Your task to perform on an android device: Search for sushi restaurants on Maps Image 0: 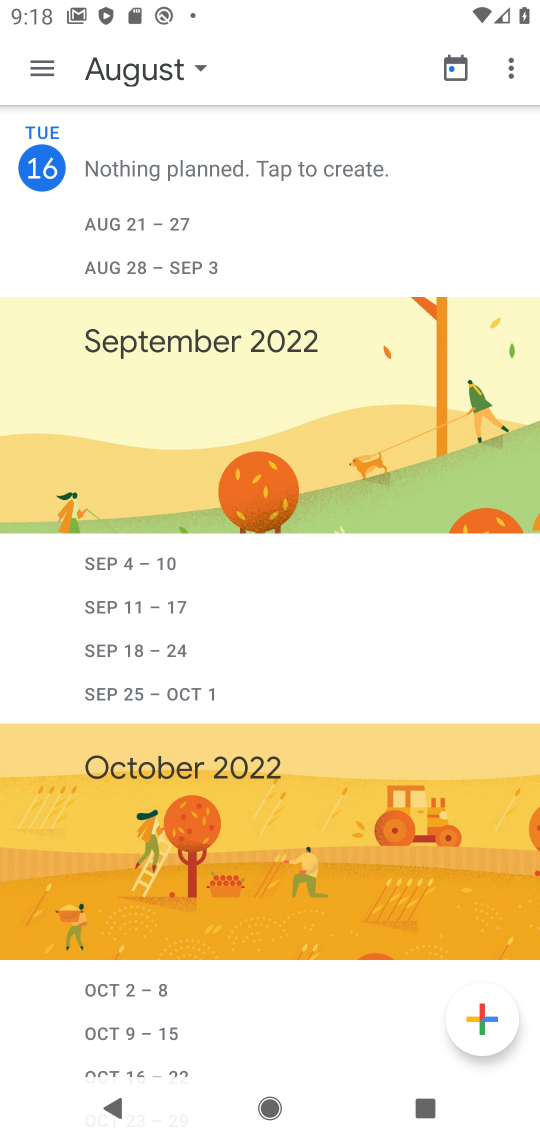
Step 0: press home button
Your task to perform on an android device: Search for sushi restaurants on Maps Image 1: 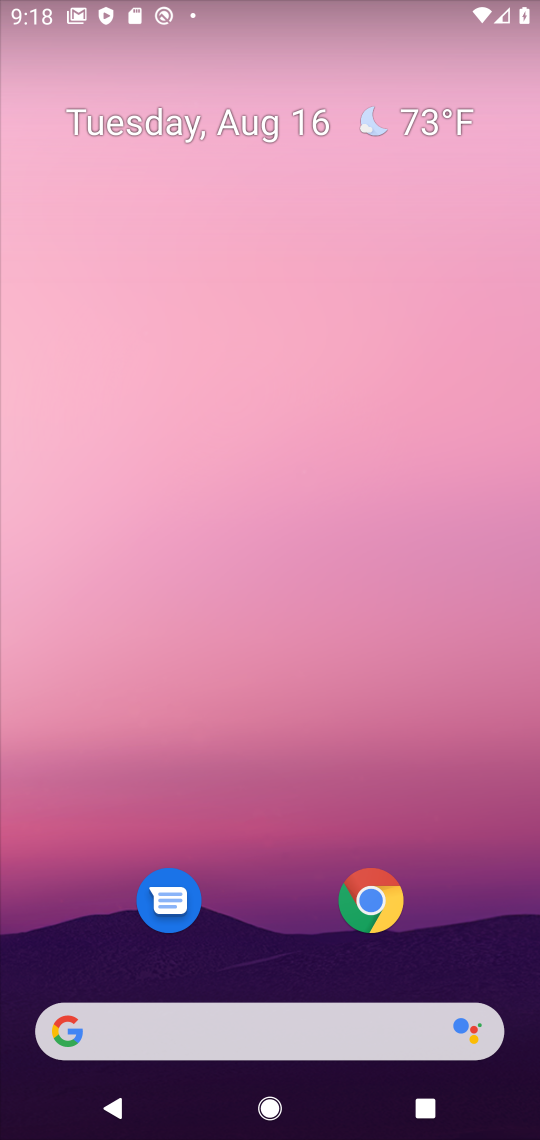
Step 1: drag from (270, 1004) to (425, 239)
Your task to perform on an android device: Search for sushi restaurants on Maps Image 2: 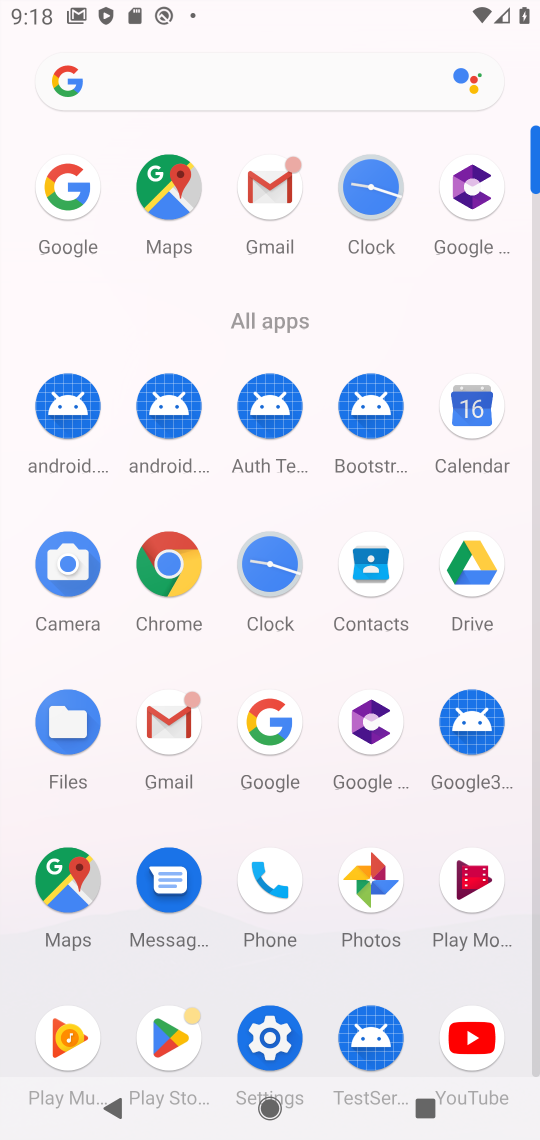
Step 2: click (85, 888)
Your task to perform on an android device: Search for sushi restaurants on Maps Image 3: 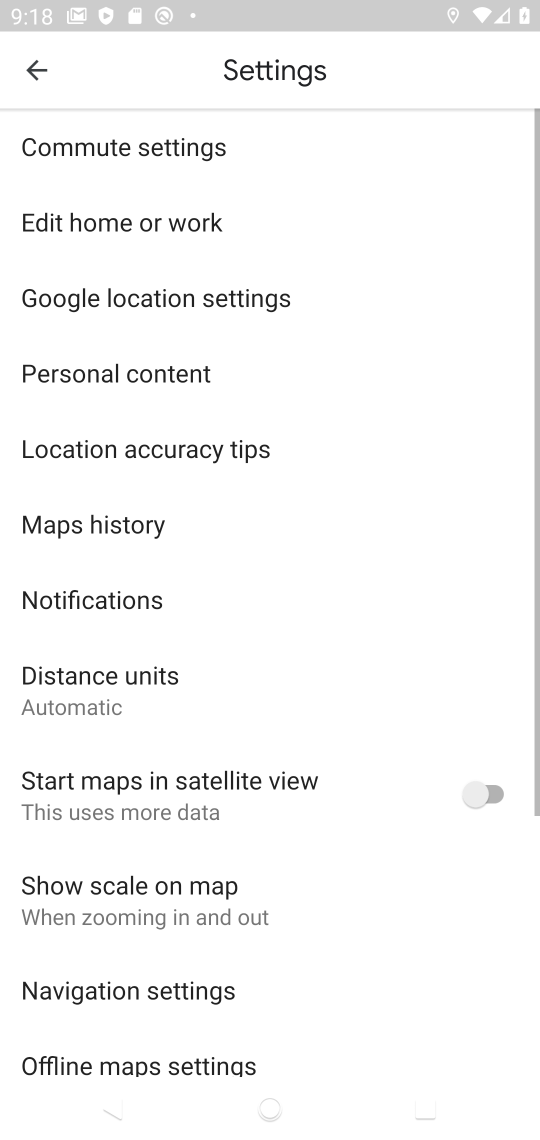
Step 3: click (53, 70)
Your task to perform on an android device: Search for sushi restaurants on Maps Image 4: 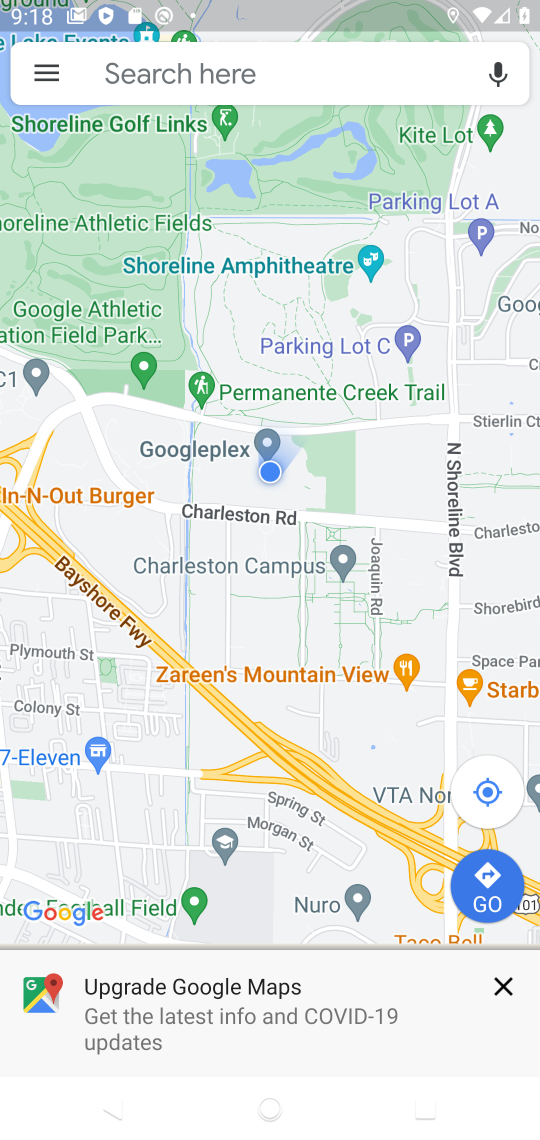
Step 4: drag from (202, 146) to (185, 893)
Your task to perform on an android device: Search for sushi restaurants on Maps Image 5: 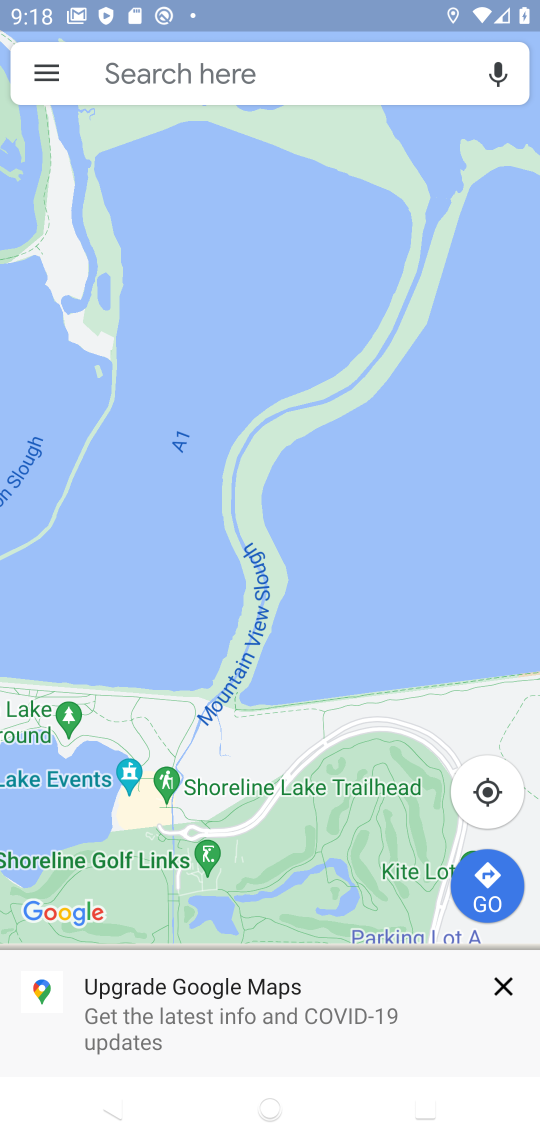
Step 5: click (152, 63)
Your task to perform on an android device: Search for sushi restaurants on Maps Image 6: 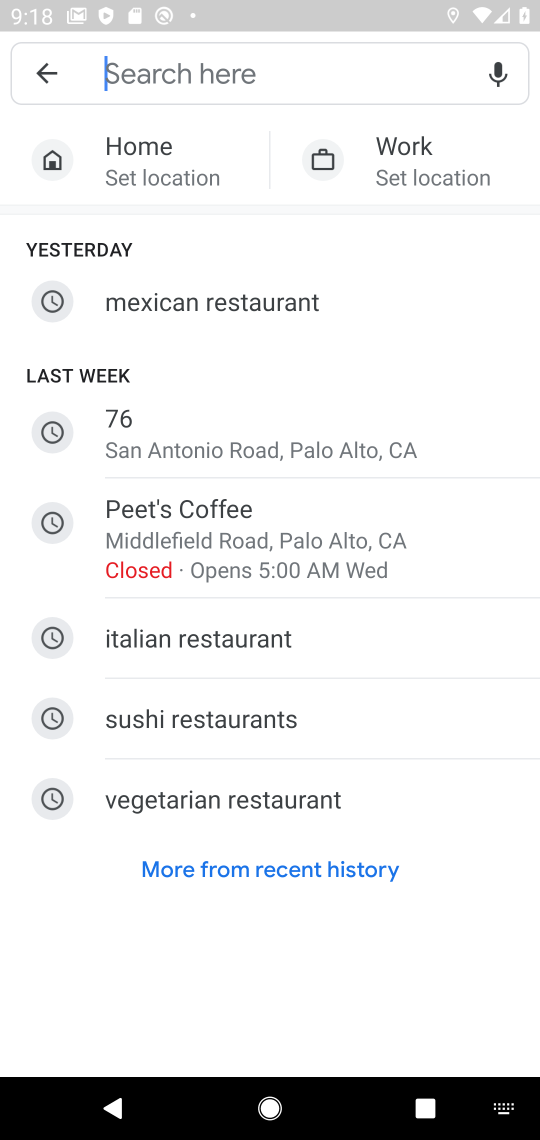
Step 6: click (197, 860)
Your task to perform on an android device: Search for sushi restaurants on Maps Image 7: 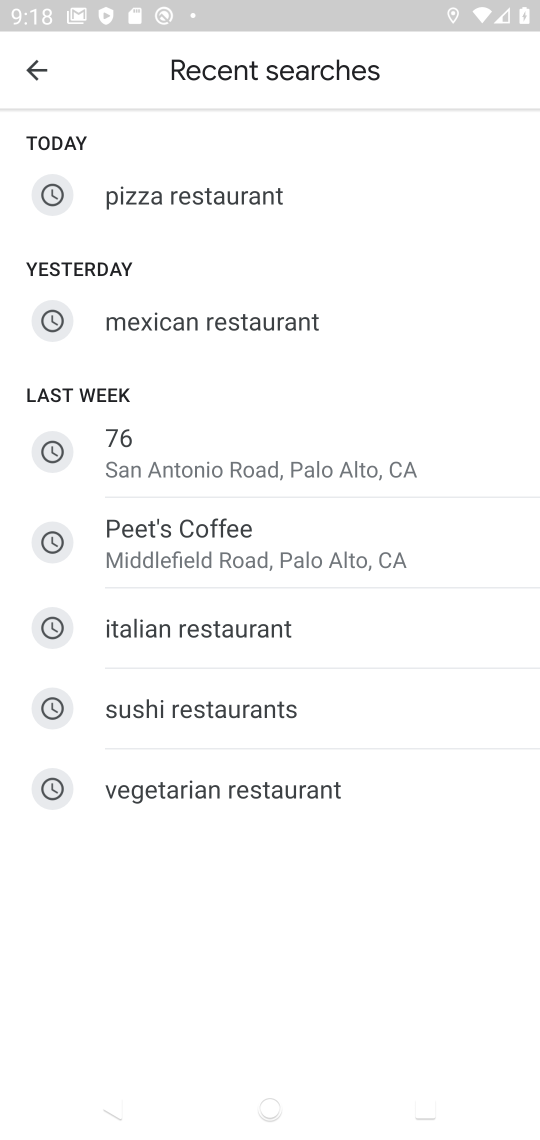
Step 7: click (186, 711)
Your task to perform on an android device: Search for sushi restaurants on Maps Image 8: 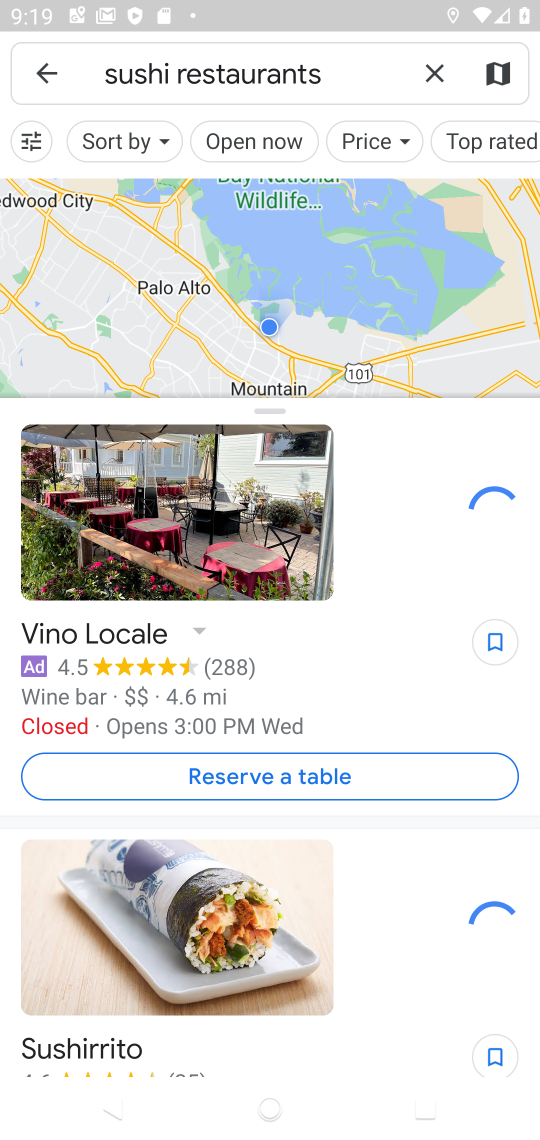
Step 8: task complete